Your task to perform on an android device: Open battery settings Image 0: 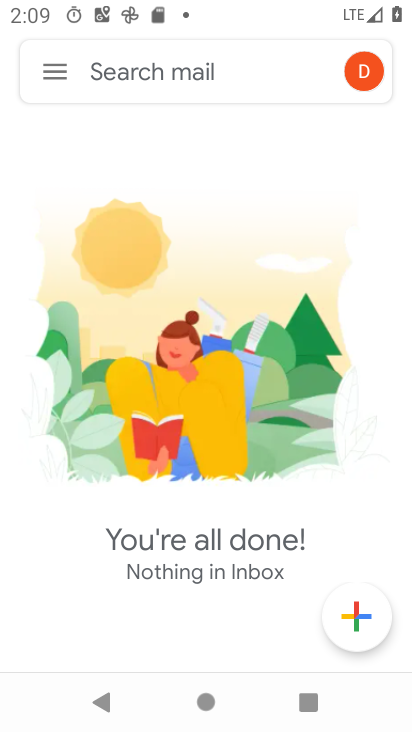
Step 0: press home button
Your task to perform on an android device: Open battery settings Image 1: 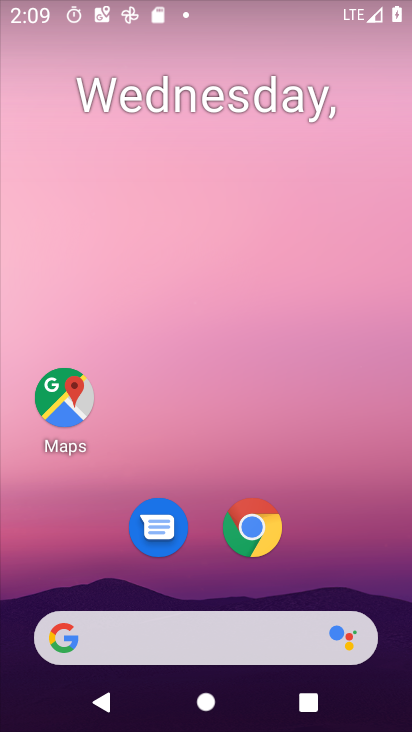
Step 1: drag from (312, 521) to (340, 25)
Your task to perform on an android device: Open battery settings Image 2: 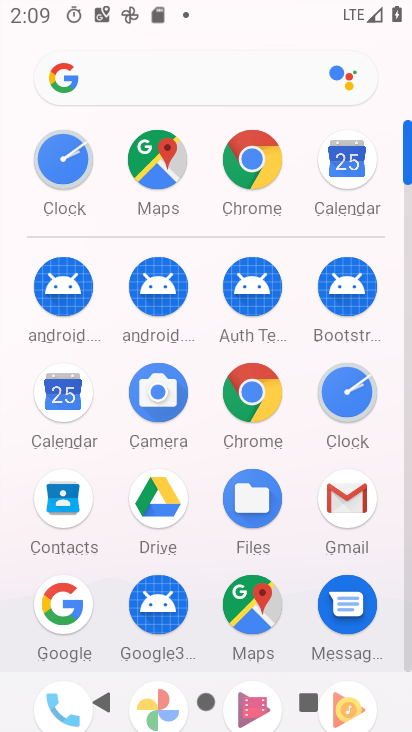
Step 2: drag from (214, 565) to (214, 80)
Your task to perform on an android device: Open battery settings Image 3: 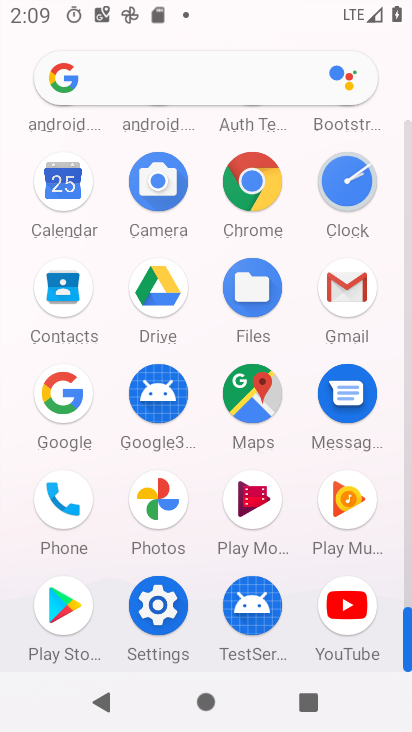
Step 3: click (168, 601)
Your task to perform on an android device: Open battery settings Image 4: 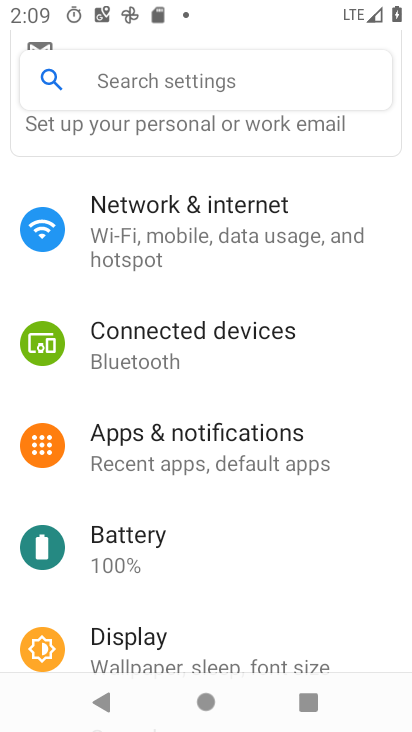
Step 4: click (180, 567)
Your task to perform on an android device: Open battery settings Image 5: 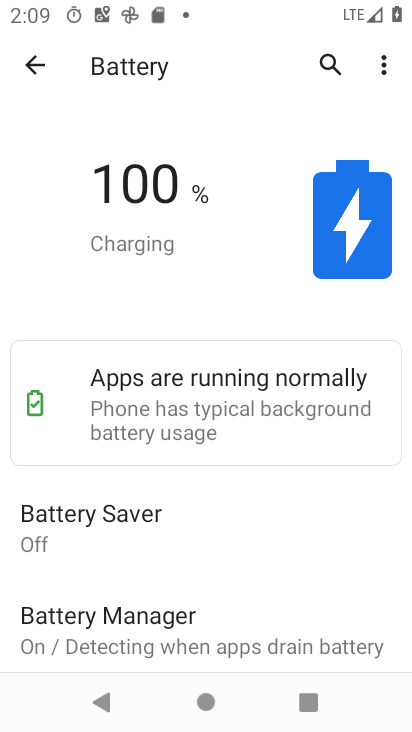
Step 5: task complete